Your task to perform on an android device: add a contact in the contacts app Image 0: 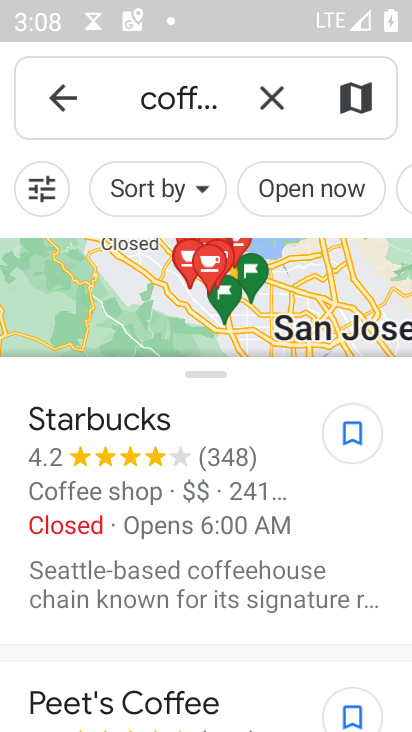
Step 0: press home button
Your task to perform on an android device: add a contact in the contacts app Image 1: 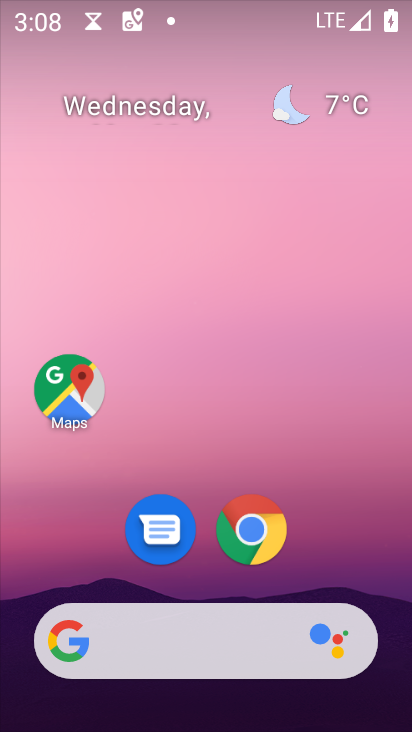
Step 1: drag from (346, 519) to (274, 104)
Your task to perform on an android device: add a contact in the contacts app Image 2: 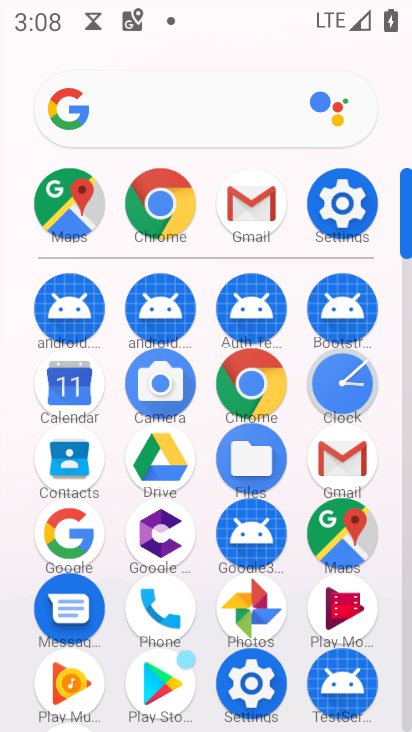
Step 2: click (71, 468)
Your task to perform on an android device: add a contact in the contacts app Image 3: 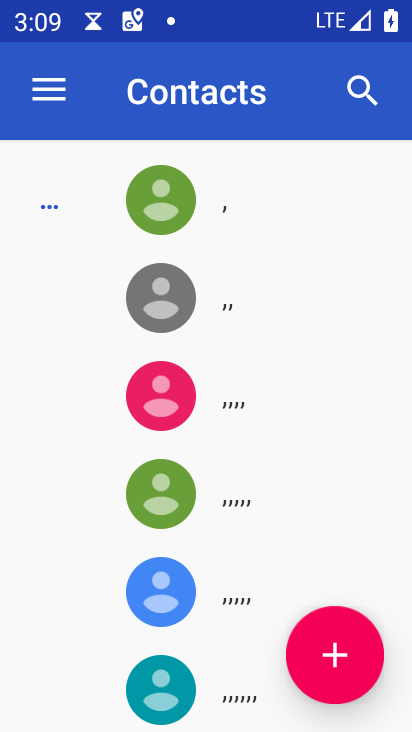
Step 3: click (335, 671)
Your task to perform on an android device: add a contact in the contacts app Image 4: 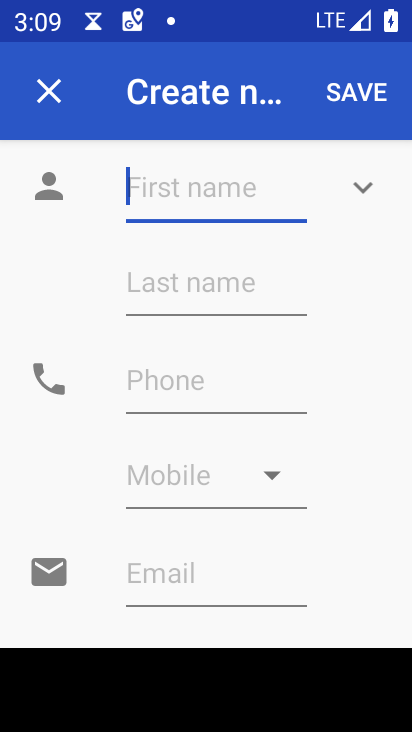
Step 4: type "hhjjj"
Your task to perform on an android device: add a contact in the contacts app Image 5: 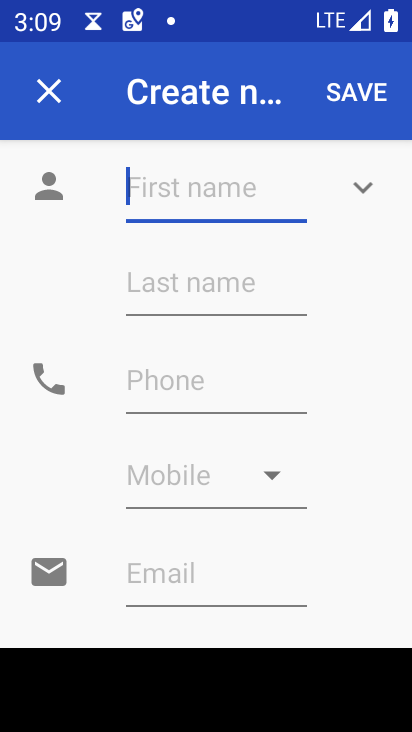
Step 5: click (234, 395)
Your task to perform on an android device: add a contact in the contacts app Image 6: 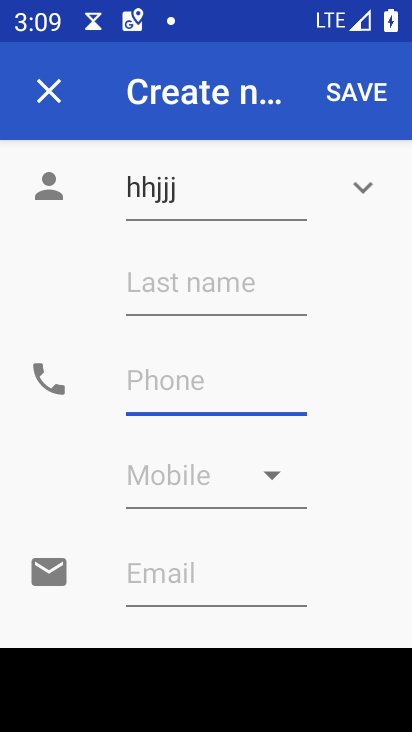
Step 6: type ""
Your task to perform on an android device: add a contact in the contacts app Image 7: 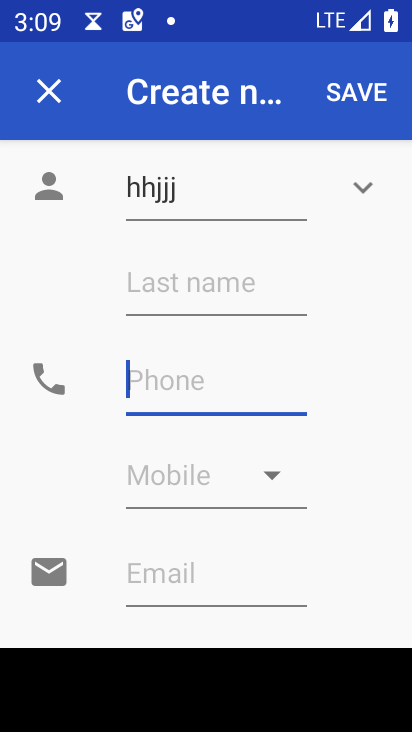
Step 7: type "676543456765"
Your task to perform on an android device: add a contact in the contacts app Image 8: 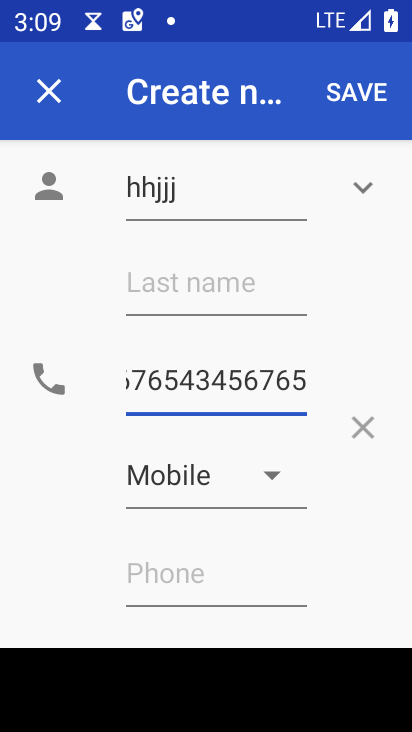
Step 8: click (374, 102)
Your task to perform on an android device: add a contact in the contacts app Image 9: 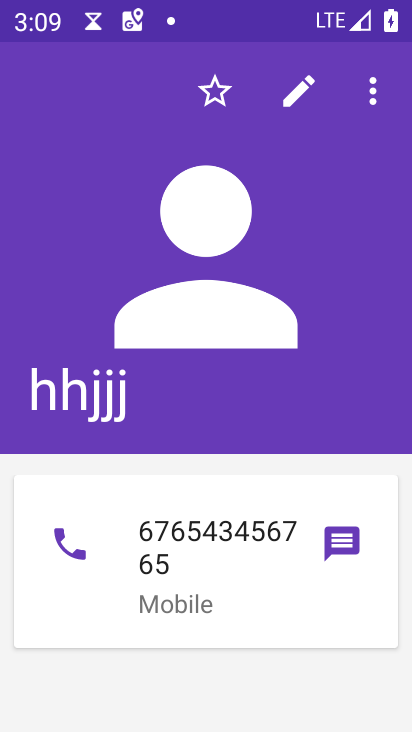
Step 9: task complete